Your task to perform on an android device: turn on location history Image 0: 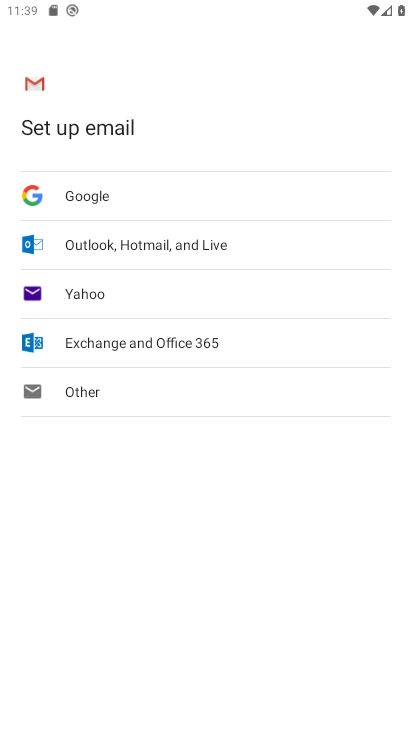
Step 0: press home button
Your task to perform on an android device: turn on location history Image 1: 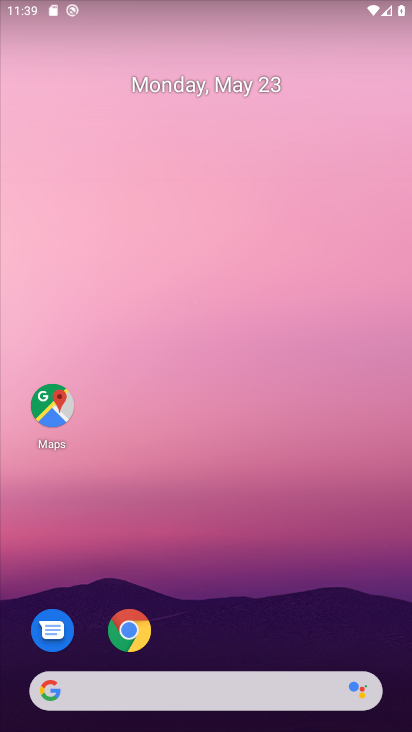
Step 1: drag from (215, 652) to (262, 0)
Your task to perform on an android device: turn on location history Image 2: 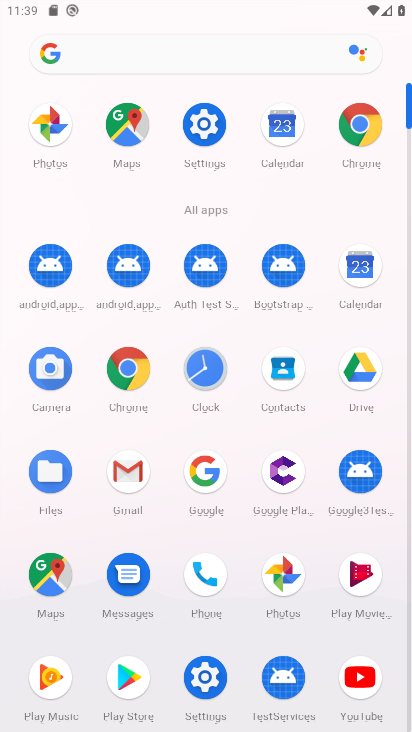
Step 2: click (213, 675)
Your task to perform on an android device: turn on location history Image 3: 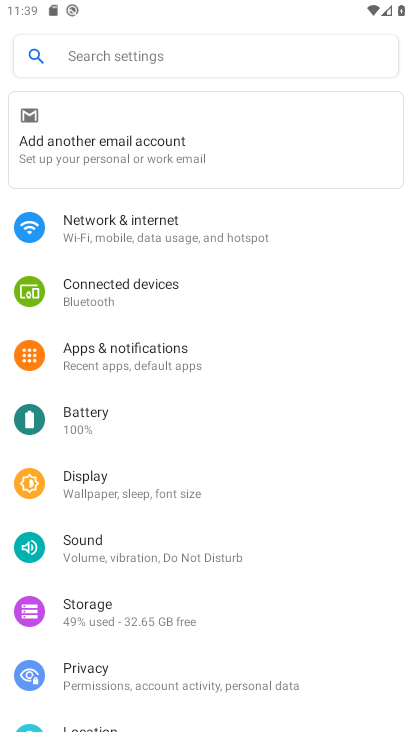
Step 3: drag from (106, 678) to (141, 516)
Your task to perform on an android device: turn on location history Image 4: 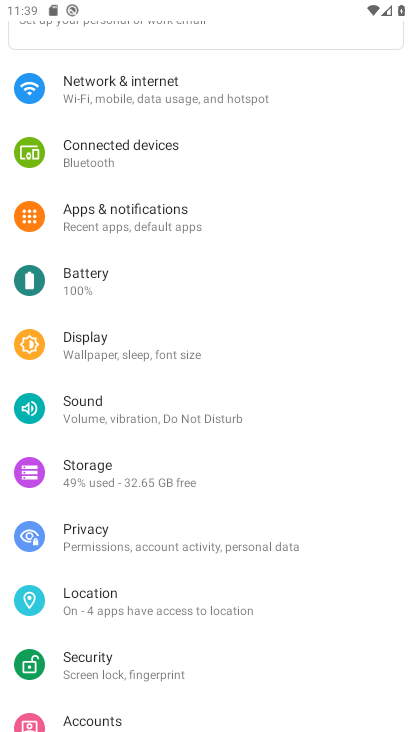
Step 4: click (101, 596)
Your task to perform on an android device: turn on location history Image 5: 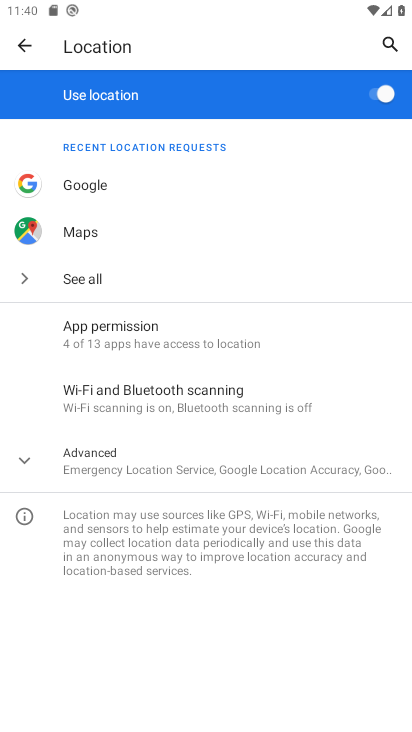
Step 5: click (128, 468)
Your task to perform on an android device: turn on location history Image 6: 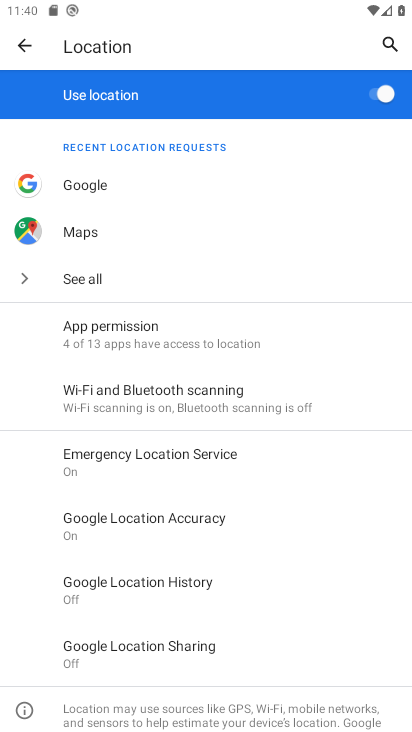
Step 6: click (153, 595)
Your task to perform on an android device: turn on location history Image 7: 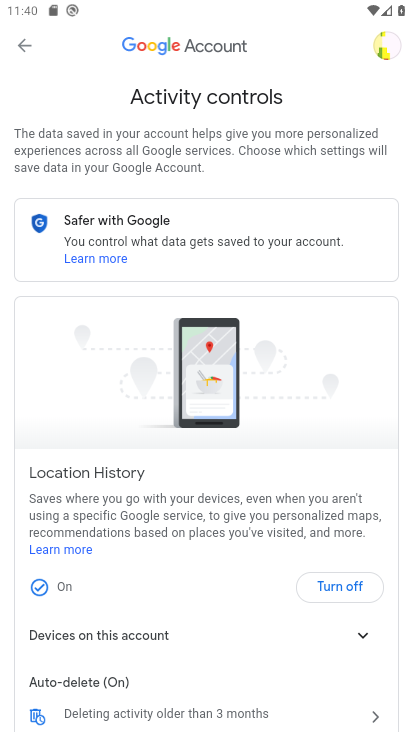
Step 7: task complete